Your task to perform on an android device: toggle javascript in the chrome app Image 0: 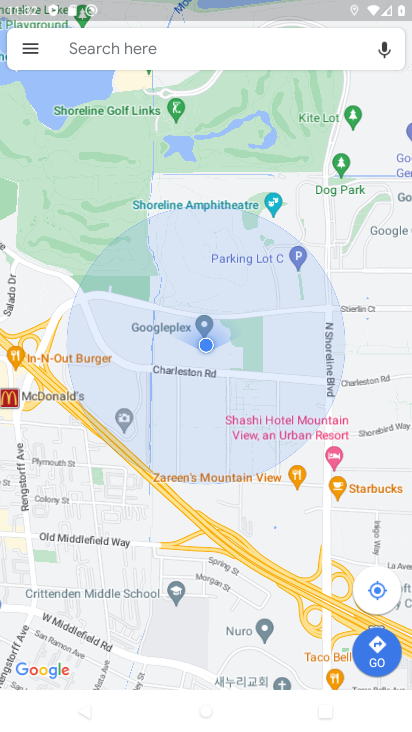
Step 0: press home button
Your task to perform on an android device: toggle javascript in the chrome app Image 1: 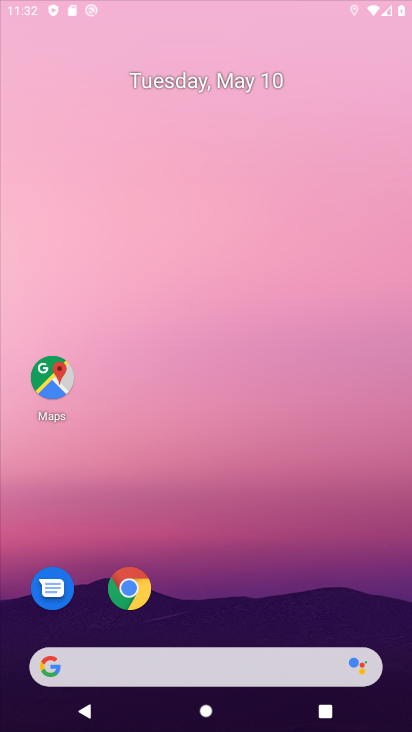
Step 1: press home button
Your task to perform on an android device: toggle javascript in the chrome app Image 2: 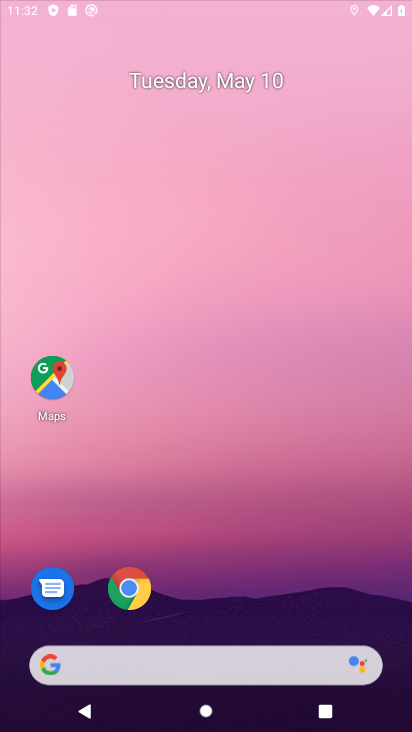
Step 2: click (251, 177)
Your task to perform on an android device: toggle javascript in the chrome app Image 3: 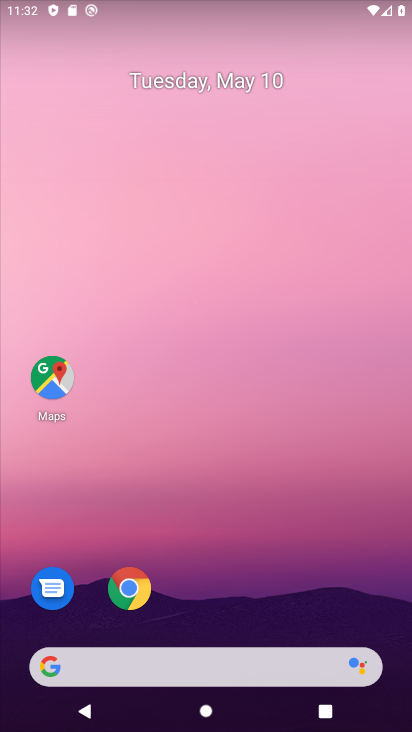
Step 3: drag from (211, 584) to (249, 332)
Your task to perform on an android device: toggle javascript in the chrome app Image 4: 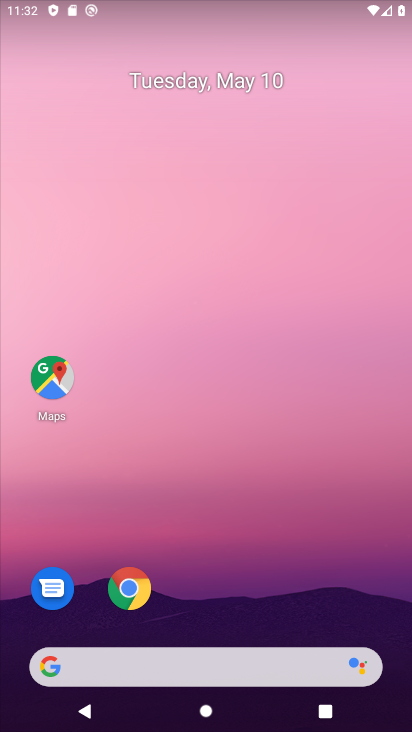
Step 4: drag from (125, 591) to (203, 225)
Your task to perform on an android device: toggle javascript in the chrome app Image 5: 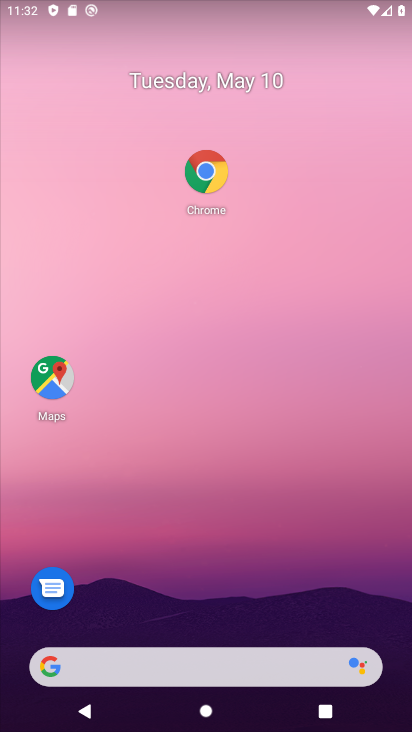
Step 5: click (201, 170)
Your task to perform on an android device: toggle javascript in the chrome app Image 6: 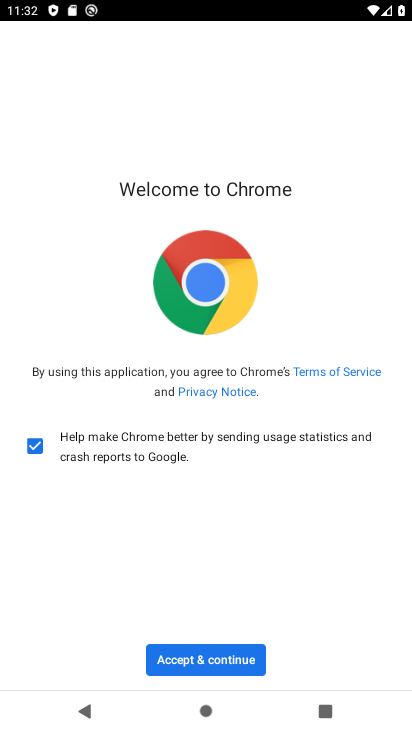
Step 6: click (199, 655)
Your task to perform on an android device: toggle javascript in the chrome app Image 7: 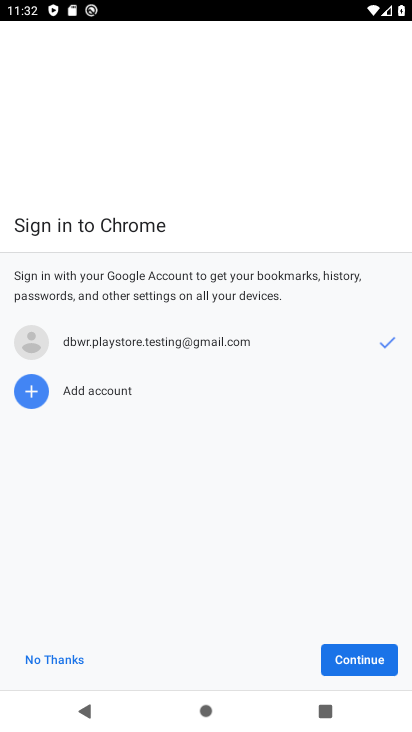
Step 7: click (351, 649)
Your task to perform on an android device: toggle javascript in the chrome app Image 8: 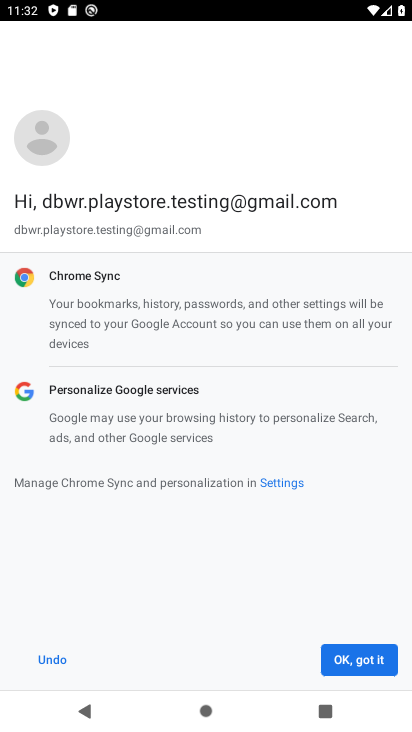
Step 8: click (360, 652)
Your task to perform on an android device: toggle javascript in the chrome app Image 9: 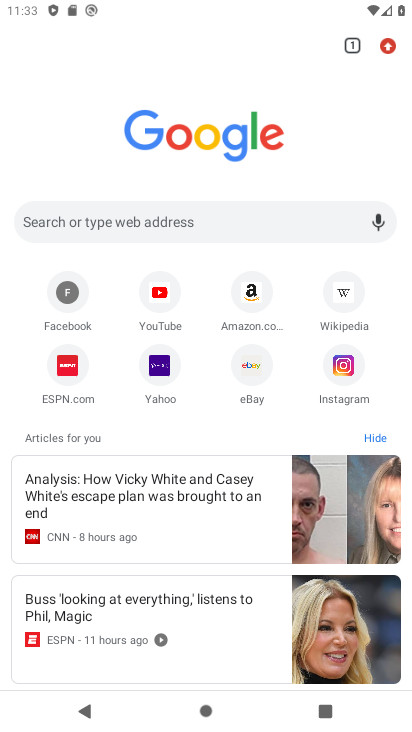
Step 9: click (380, 45)
Your task to perform on an android device: toggle javascript in the chrome app Image 10: 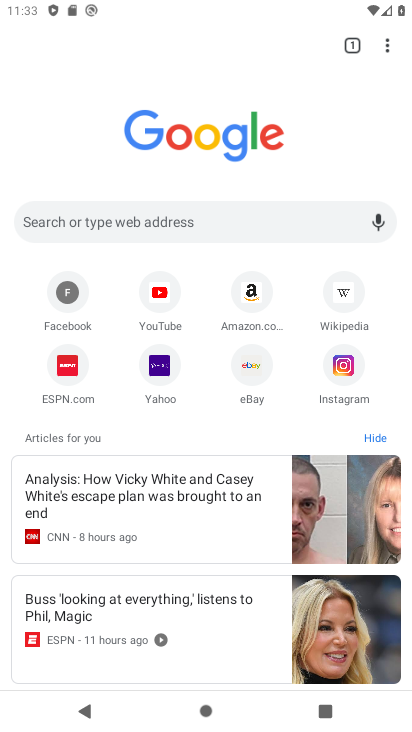
Step 10: click (381, 41)
Your task to perform on an android device: toggle javascript in the chrome app Image 11: 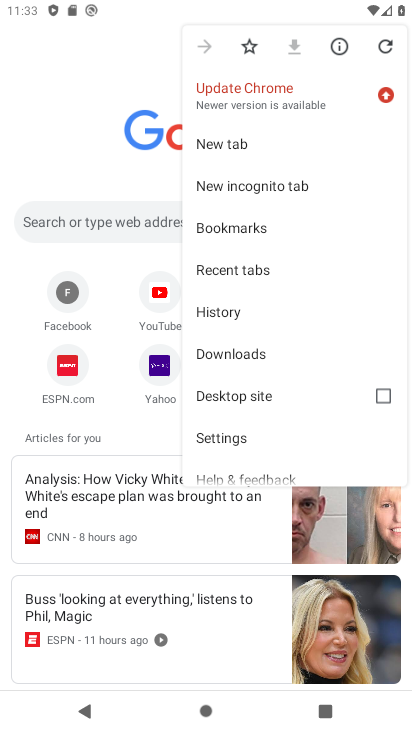
Step 11: click (233, 443)
Your task to perform on an android device: toggle javascript in the chrome app Image 12: 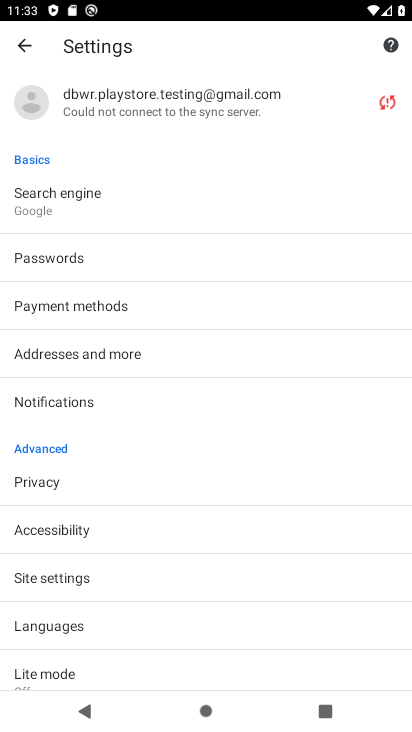
Step 12: drag from (133, 599) to (187, 442)
Your task to perform on an android device: toggle javascript in the chrome app Image 13: 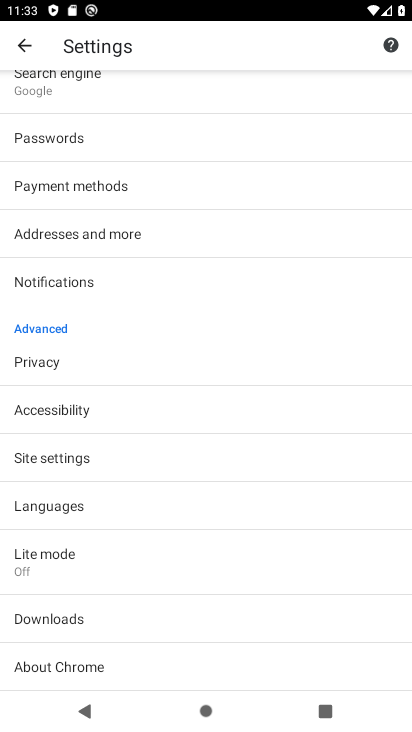
Step 13: click (88, 456)
Your task to perform on an android device: toggle javascript in the chrome app Image 14: 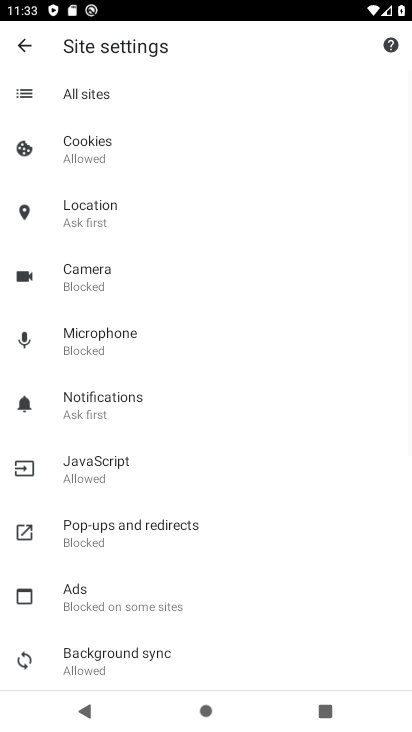
Step 14: click (116, 464)
Your task to perform on an android device: toggle javascript in the chrome app Image 15: 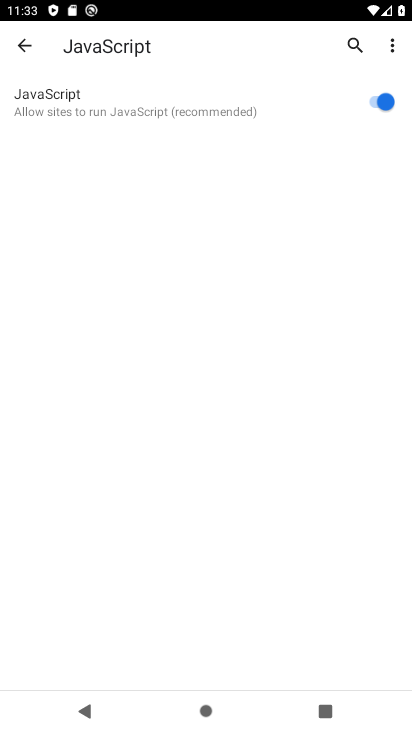
Step 15: click (386, 99)
Your task to perform on an android device: toggle javascript in the chrome app Image 16: 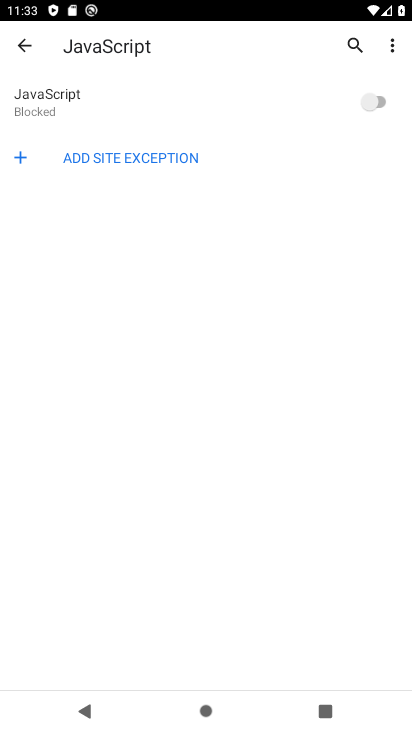
Step 16: task complete